Your task to perform on an android device: turn on improve location accuracy Image 0: 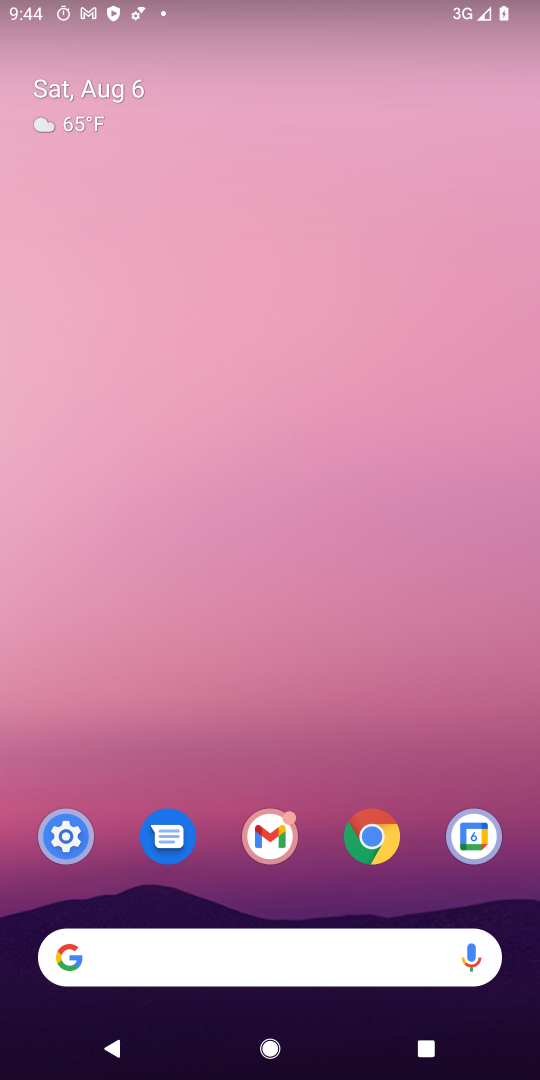
Step 0: drag from (514, 878) to (302, 128)
Your task to perform on an android device: turn on improve location accuracy Image 1: 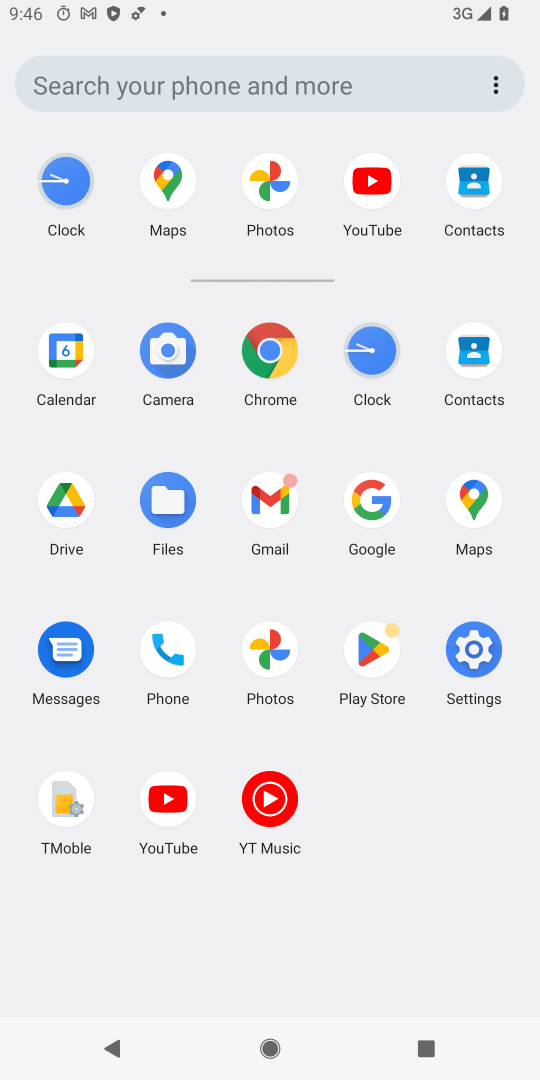
Step 1: click (505, 640)
Your task to perform on an android device: turn on improve location accuracy Image 2: 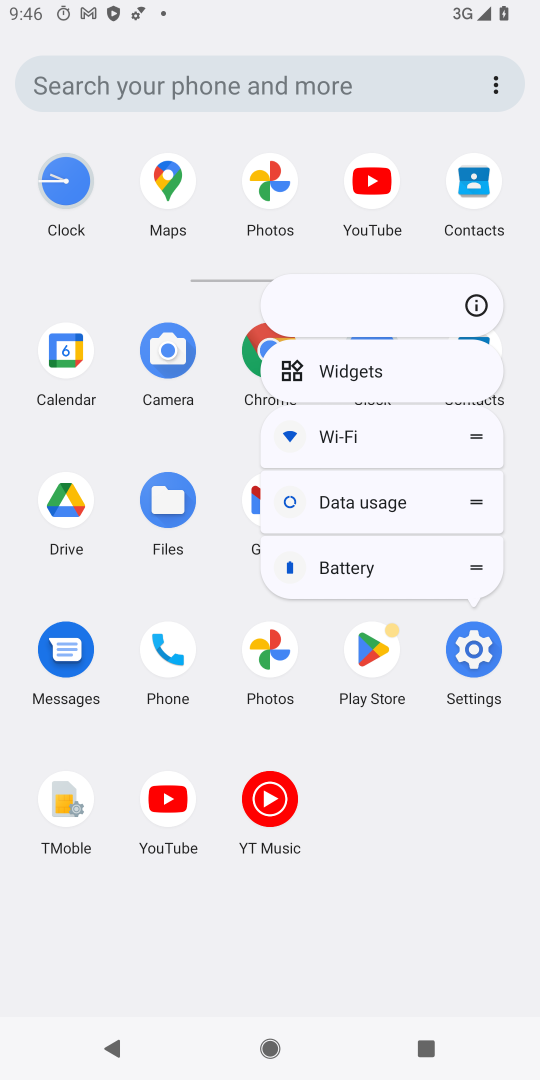
Step 2: click (480, 652)
Your task to perform on an android device: turn on improve location accuracy Image 3: 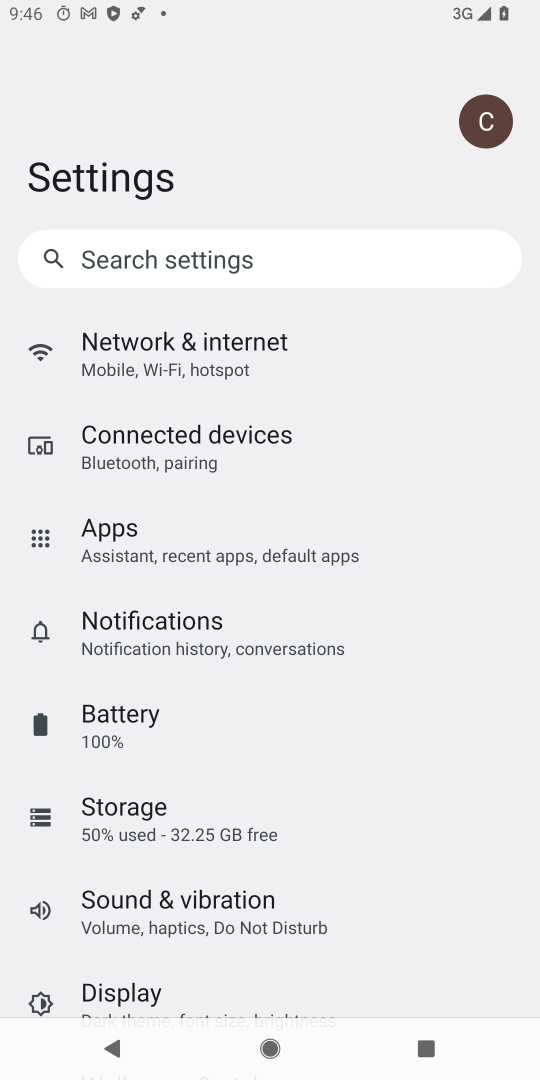
Step 3: drag from (200, 933) to (206, 362)
Your task to perform on an android device: turn on improve location accuracy Image 4: 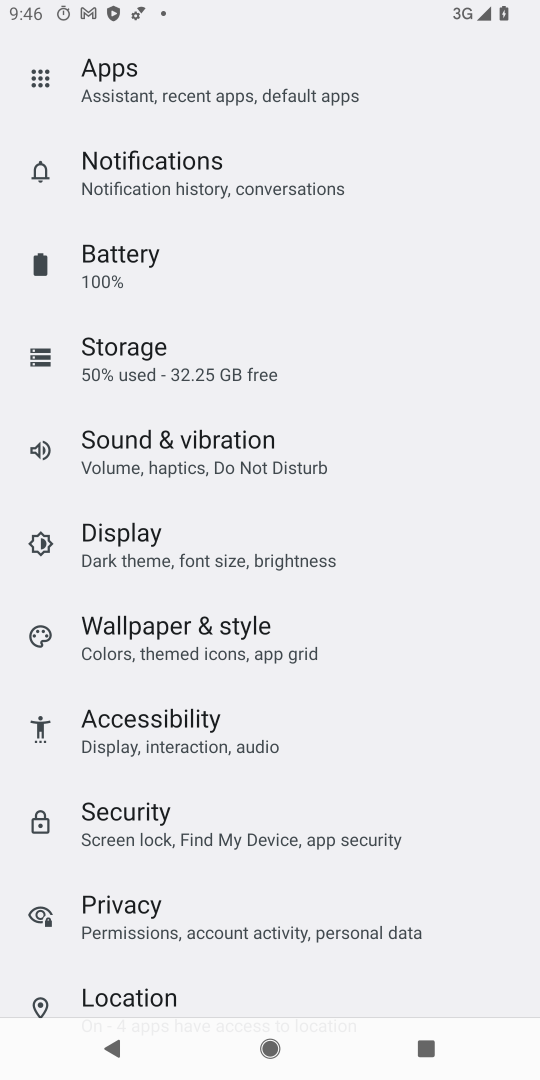
Step 4: click (128, 1008)
Your task to perform on an android device: turn on improve location accuracy Image 5: 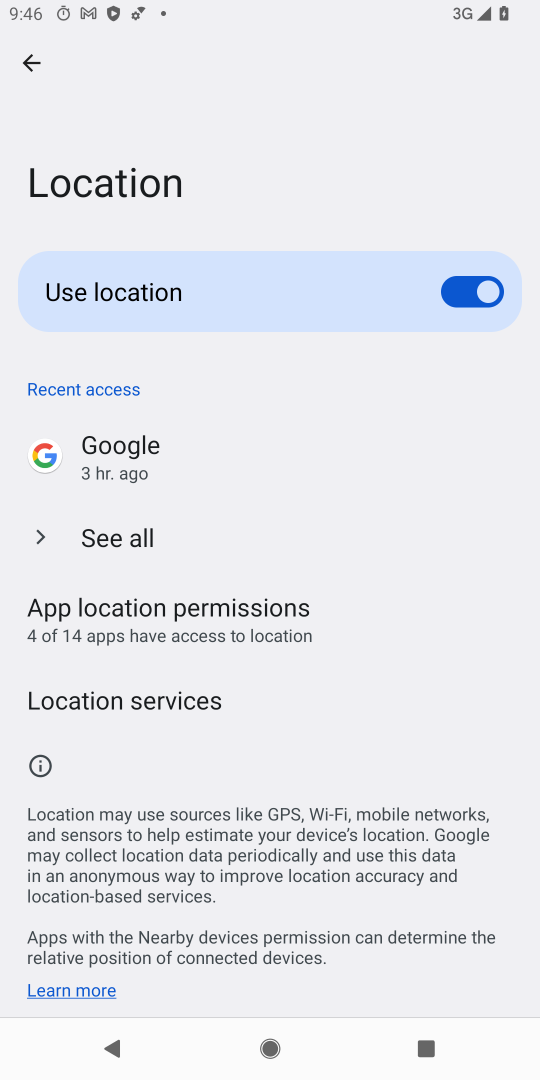
Step 5: click (139, 690)
Your task to perform on an android device: turn on improve location accuracy Image 6: 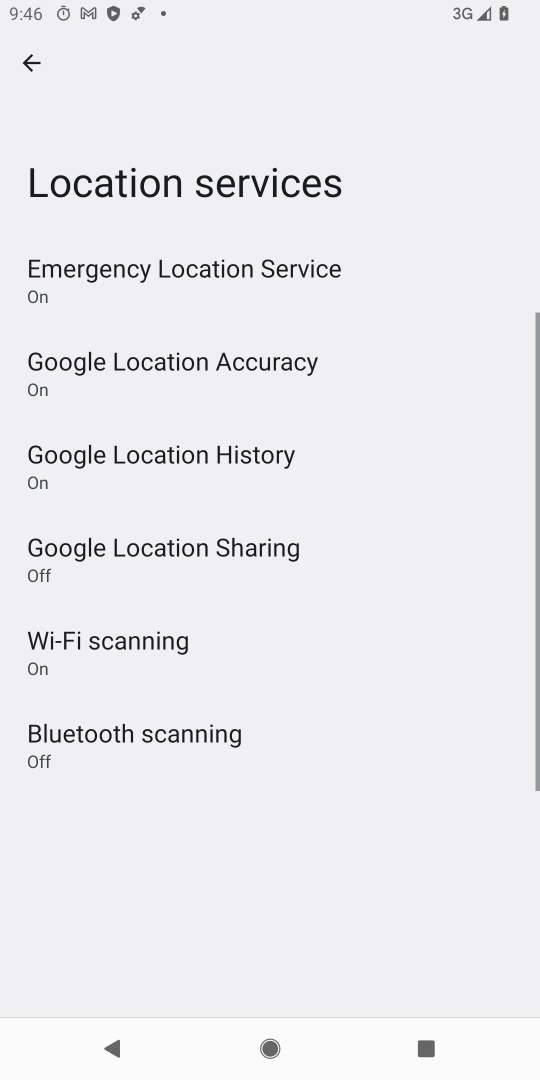
Step 6: click (285, 360)
Your task to perform on an android device: turn on improve location accuracy Image 7: 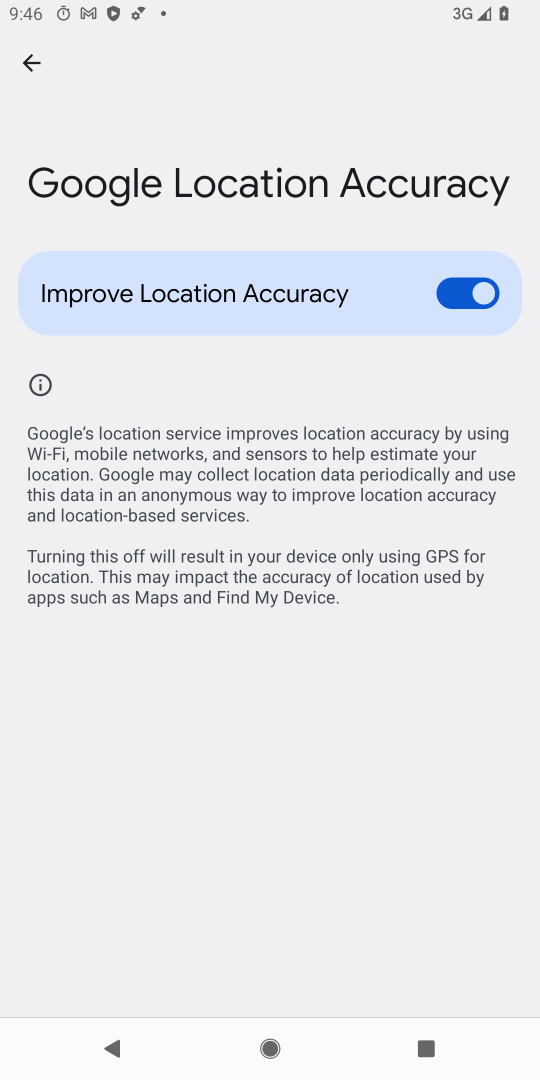
Step 7: task complete